Your task to perform on an android device: Set the phone to "Do not disturb". Image 0: 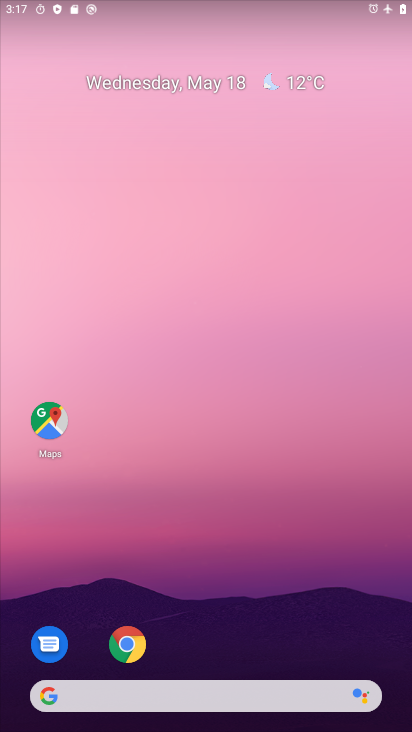
Step 0: drag from (401, 673) to (357, 233)
Your task to perform on an android device: Set the phone to "Do not disturb". Image 1: 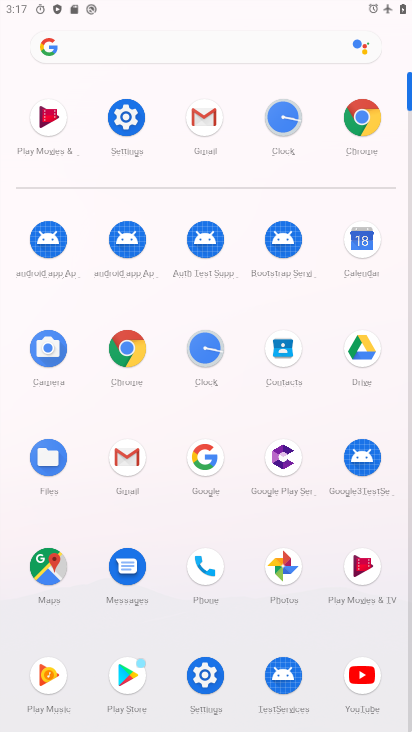
Step 1: click (127, 114)
Your task to perform on an android device: Set the phone to "Do not disturb". Image 2: 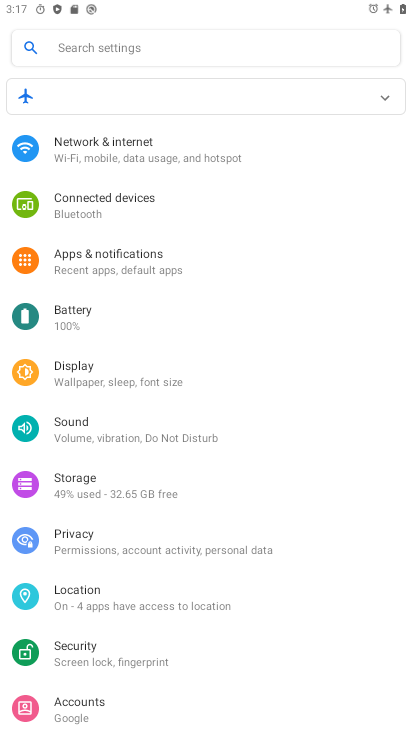
Step 2: click (64, 423)
Your task to perform on an android device: Set the phone to "Do not disturb". Image 3: 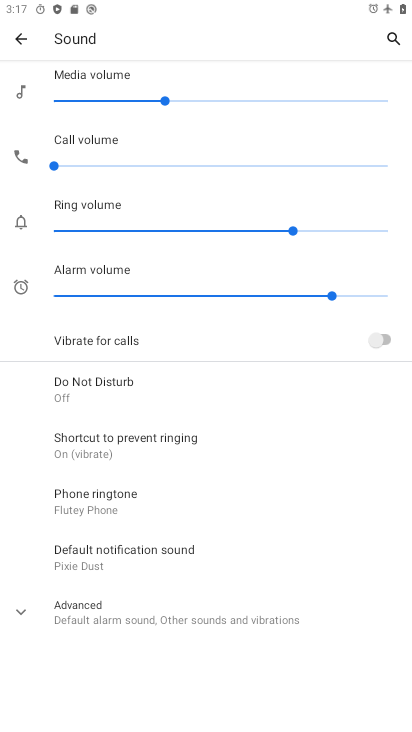
Step 3: click (60, 385)
Your task to perform on an android device: Set the phone to "Do not disturb". Image 4: 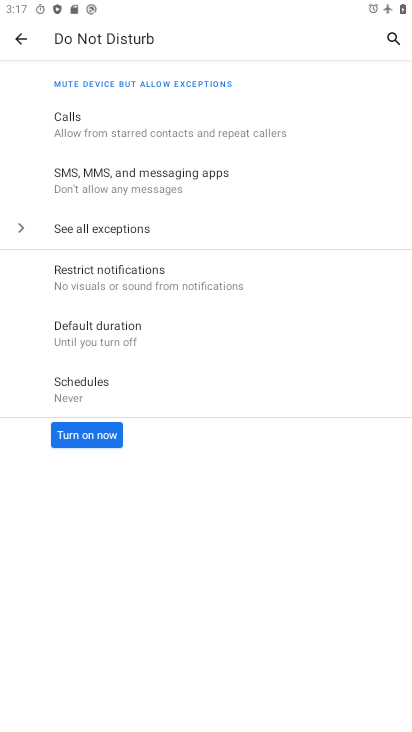
Step 4: click (61, 441)
Your task to perform on an android device: Set the phone to "Do not disturb". Image 5: 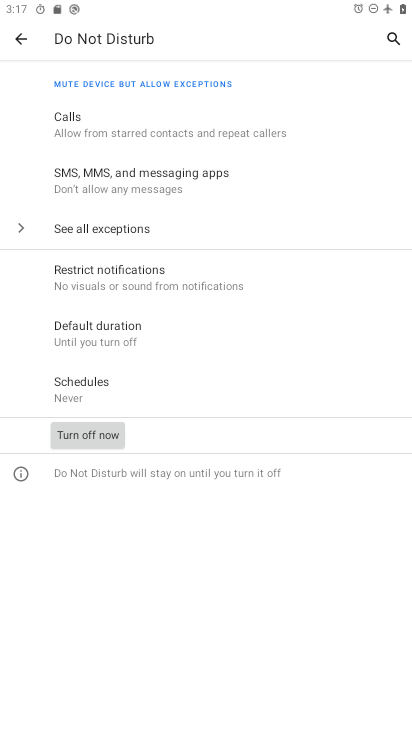
Step 5: task complete